Your task to perform on an android device: stop showing notifications on the lock screen Image 0: 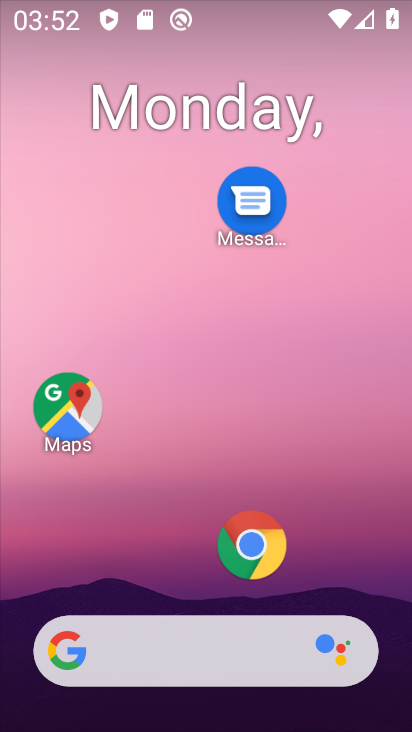
Step 0: drag from (180, 563) to (285, 91)
Your task to perform on an android device: stop showing notifications on the lock screen Image 1: 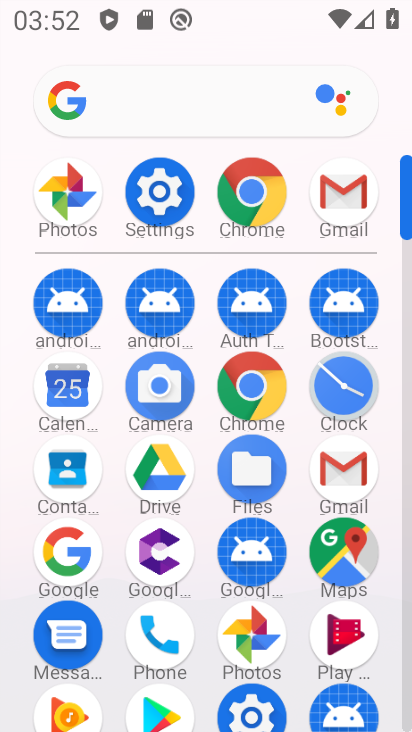
Step 1: click (148, 192)
Your task to perform on an android device: stop showing notifications on the lock screen Image 2: 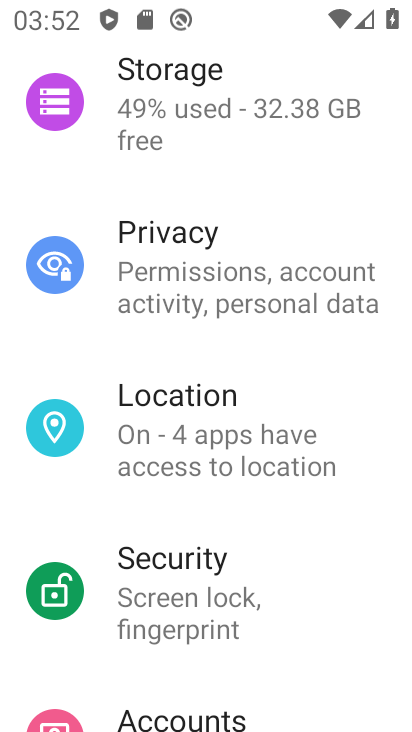
Step 2: drag from (222, 215) to (167, 719)
Your task to perform on an android device: stop showing notifications on the lock screen Image 3: 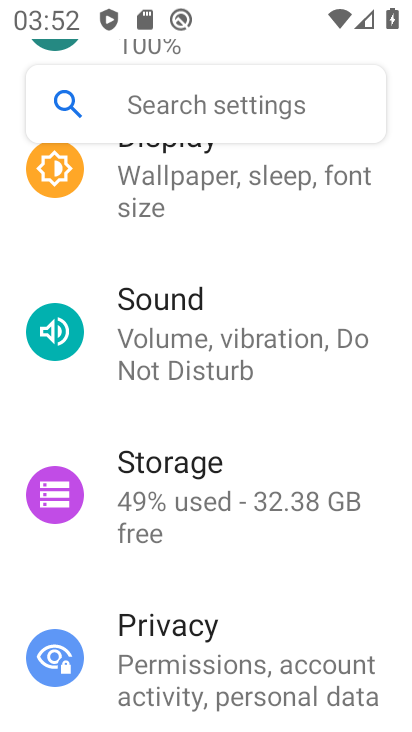
Step 3: drag from (210, 257) to (156, 709)
Your task to perform on an android device: stop showing notifications on the lock screen Image 4: 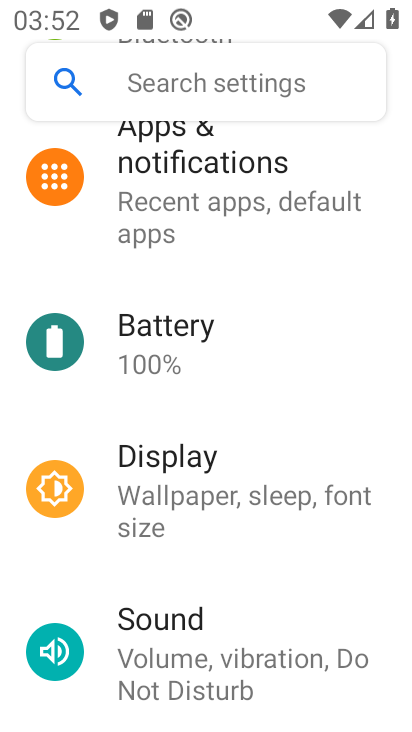
Step 4: click (191, 203)
Your task to perform on an android device: stop showing notifications on the lock screen Image 5: 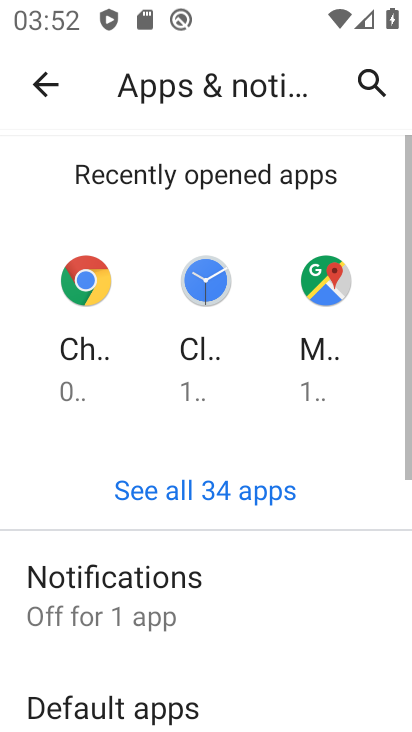
Step 5: drag from (170, 678) to (325, 133)
Your task to perform on an android device: stop showing notifications on the lock screen Image 6: 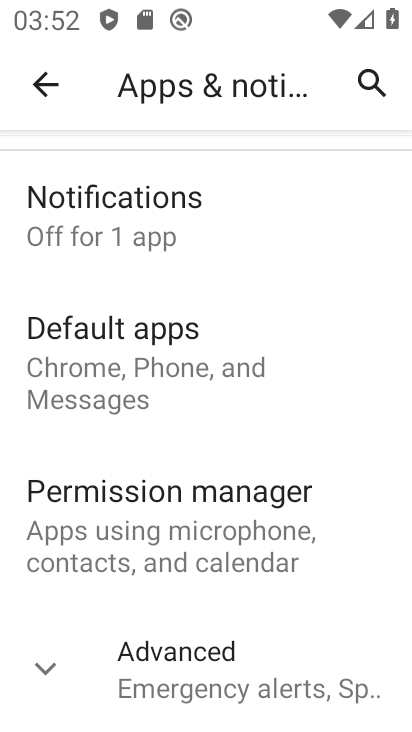
Step 6: click (180, 676)
Your task to perform on an android device: stop showing notifications on the lock screen Image 7: 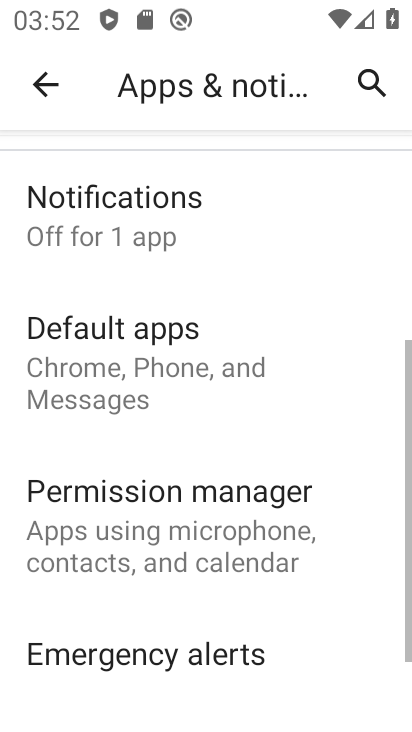
Step 7: drag from (181, 676) to (199, 207)
Your task to perform on an android device: stop showing notifications on the lock screen Image 8: 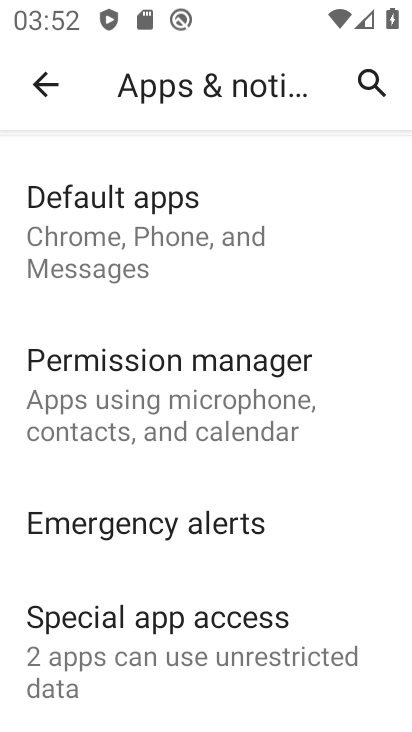
Step 8: drag from (216, 179) to (178, 724)
Your task to perform on an android device: stop showing notifications on the lock screen Image 9: 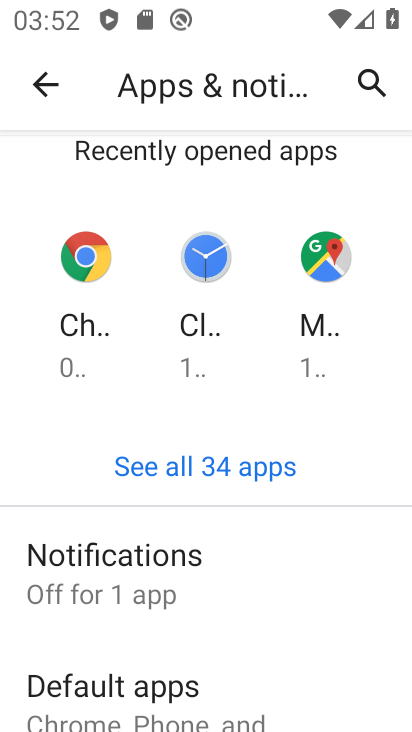
Step 9: click (154, 554)
Your task to perform on an android device: stop showing notifications on the lock screen Image 10: 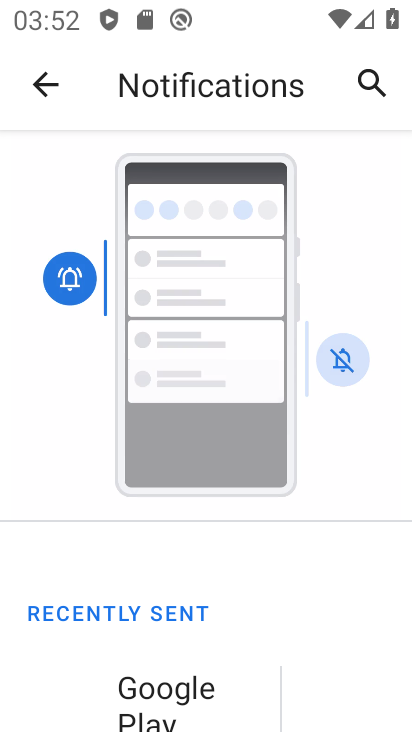
Step 10: drag from (160, 639) to (303, 62)
Your task to perform on an android device: stop showing notifications on the lock screen Image 11: 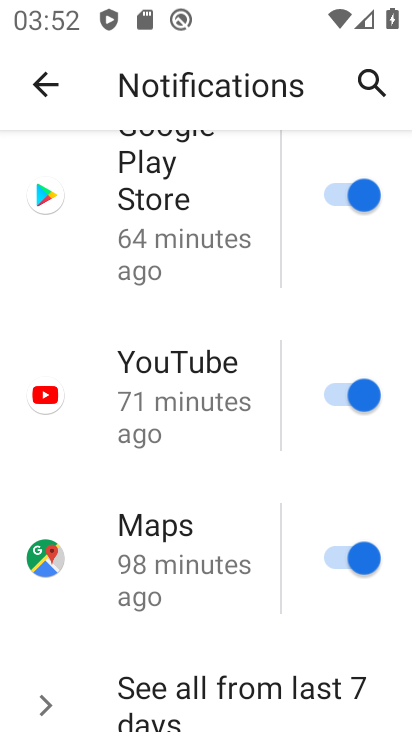
Step 11: drag from (165, 655) to (279, 175)
Your task to perform on an android device: stop showing notifications on the lock screen Image 12: 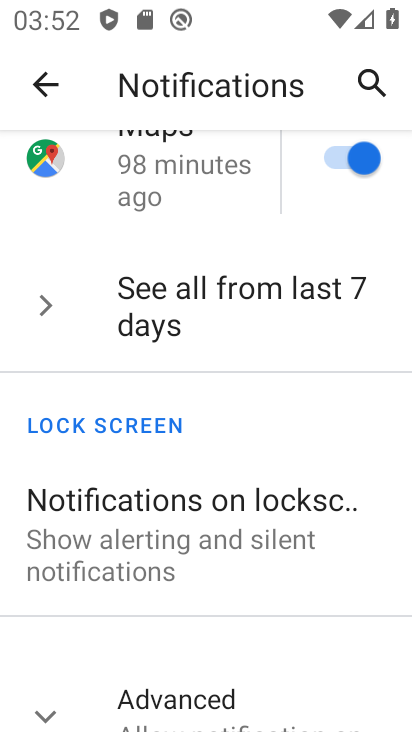
Step 12: click (152, 526)
Your task to perform on an android device: stop showing notifications on the lock screen Image 13: 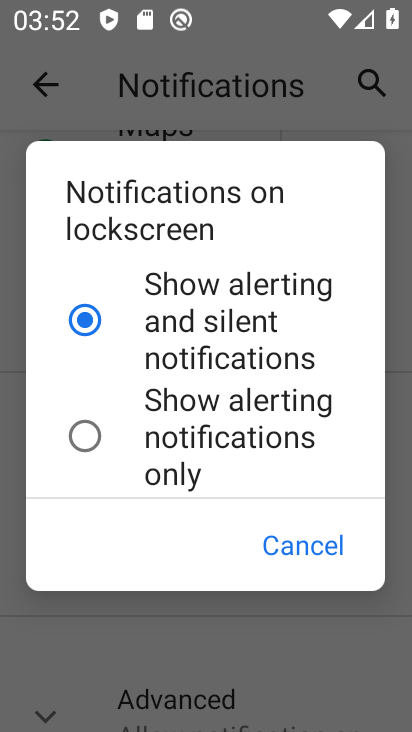
Step 13: drag from (108, 416) to (196, 99)
Your task to perform on an android device: stop showing notifications on the lock screen Image 14: 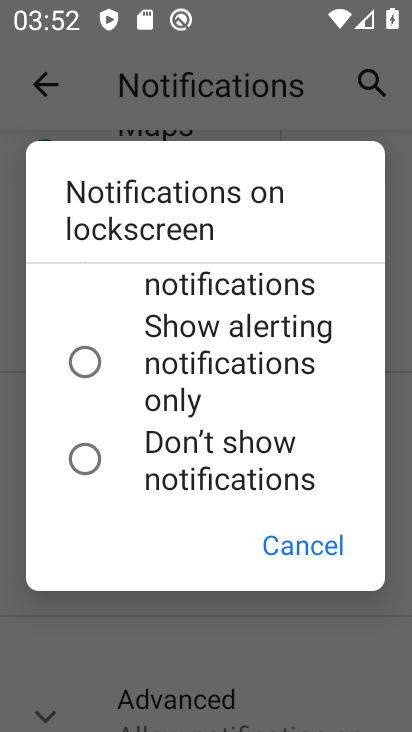
Step 14: click (77, 451)
Your task to perform on an android device: stop showing notifications on the lock screen Image 15: 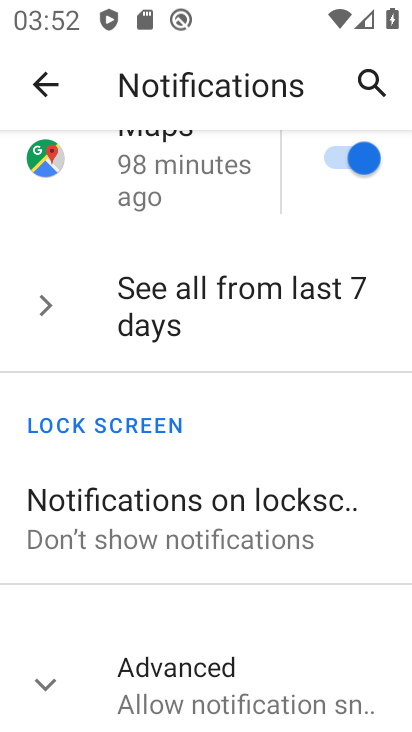
Step 15: task complete